Your task to perform on an android device: toggle translation in the chrome app Image 0: 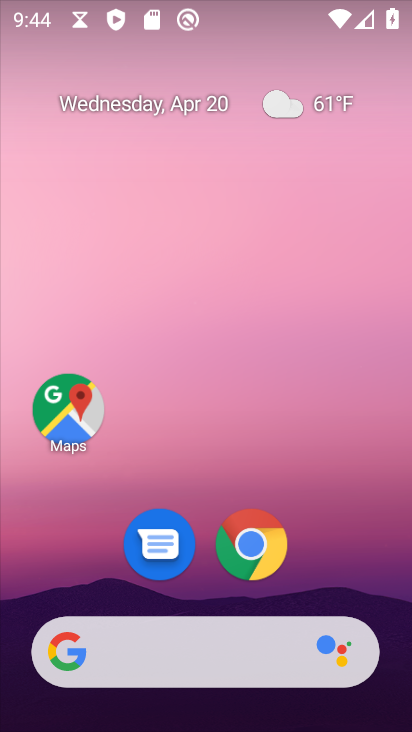
Step 0: drag from (149, 658) to (247, 97)
Your task to perform on an android device: toggle translation in the chrome app Image 1: 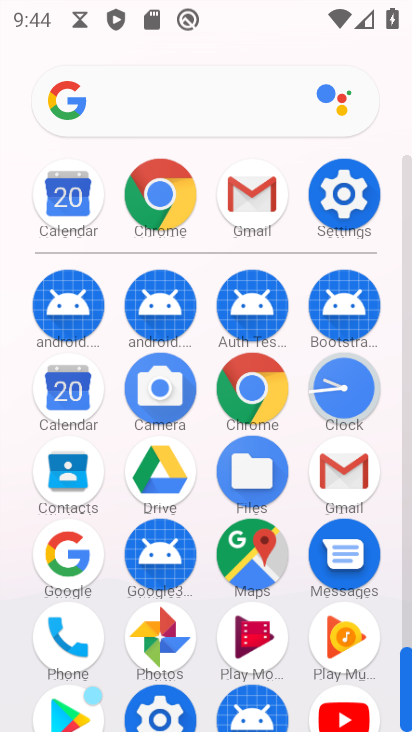
Step 1: click (163, 188)
Your task to perform on an android device: toggle translation in the chrome app Image 2: 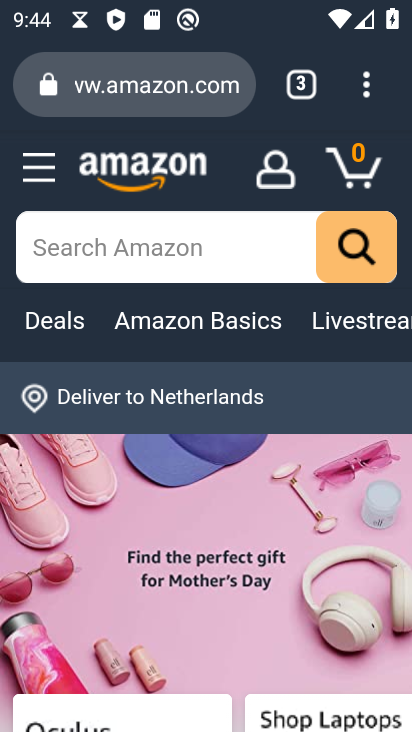
Step 2: click (363, 105)
Your task to perform on an android device: toggle translation in the chrome app Image 3: 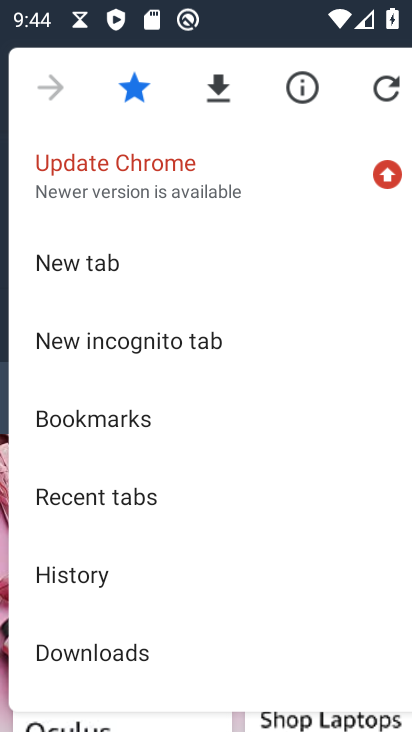
Step 3: drag from (157, 565) to (348, 139)
Your task to perform on an android device: toggle translation in the chrome app Image 4: 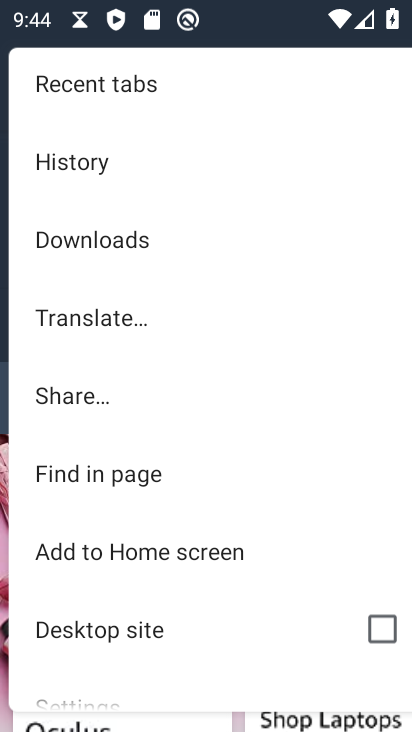
Step 4: drag from (254, 545) to (353, 88)
Your task to perform on an android device: toggle translation in the chrome app Image 5: 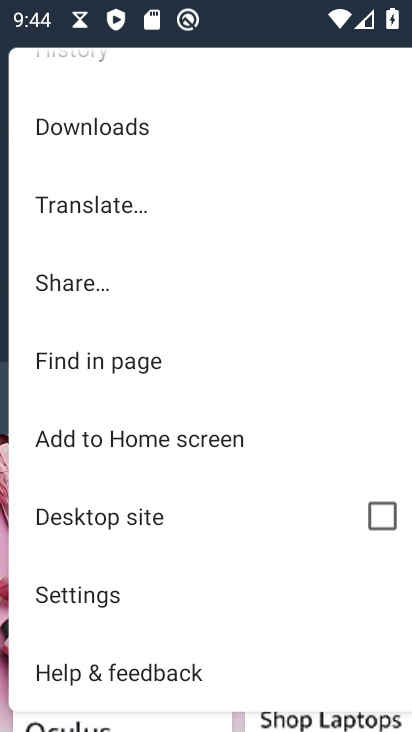
Step 5: click (69, 596)
Your task to perform on an android device: toggle translation in the chrome app Image 6: 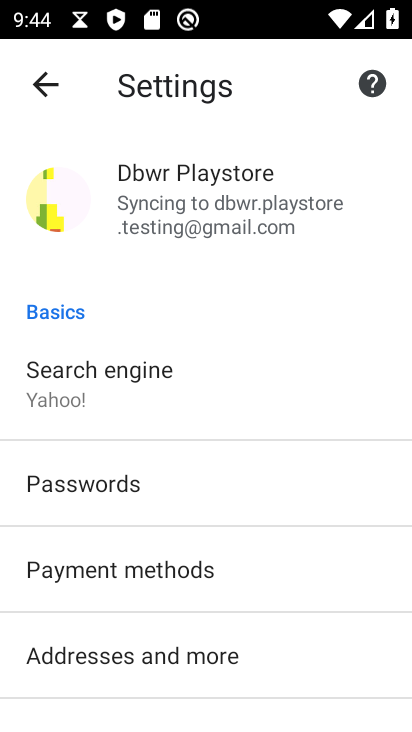
Step 6: drag from (204, 601) to (290, 118)
Your task to perform on an android device: toggle translation in the chrome app Image 7: 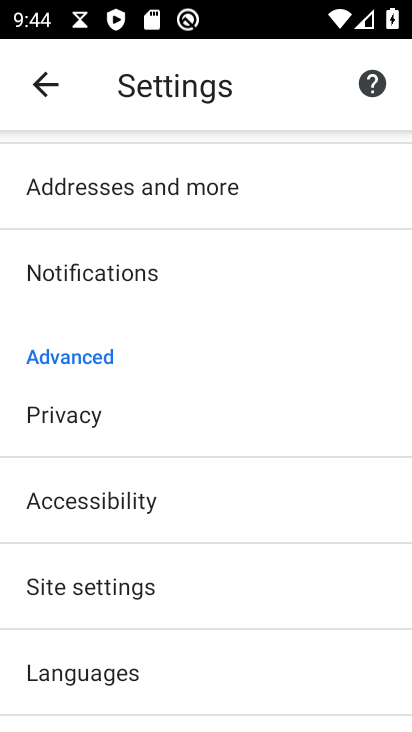
Step 7: drag from (196, 579) to (293, 250)
Your task to perform on an android device: toggle translation in the chrome app Image 8: 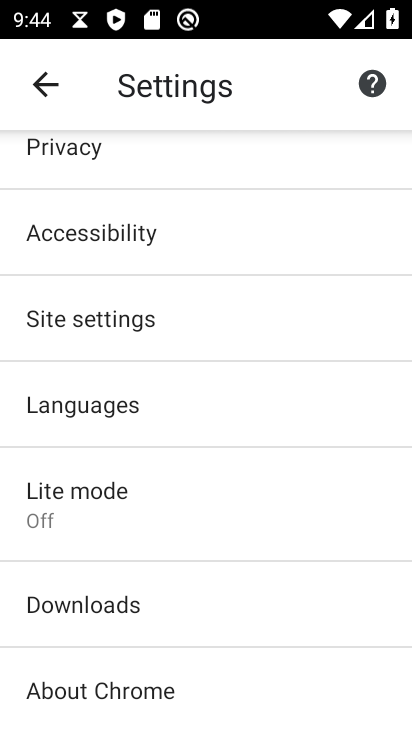
Step 8: click (101, 406)
Your task to perform on an android device: toggle translation in the chrome app Image 9: 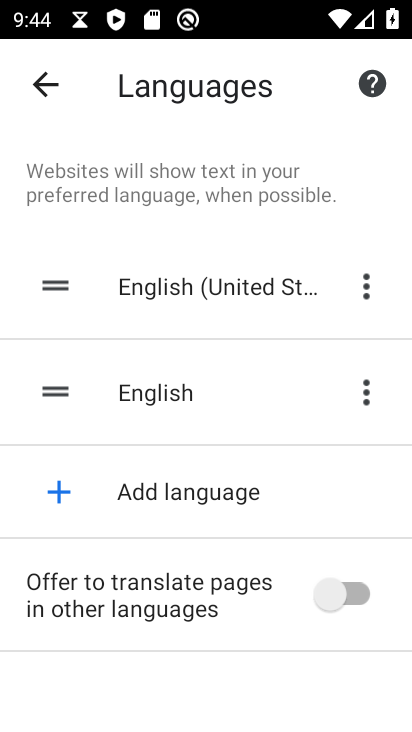
Step 9: click (363, 593)
Your task to perform on an android device: toggle translation in the chrome app Image 10: 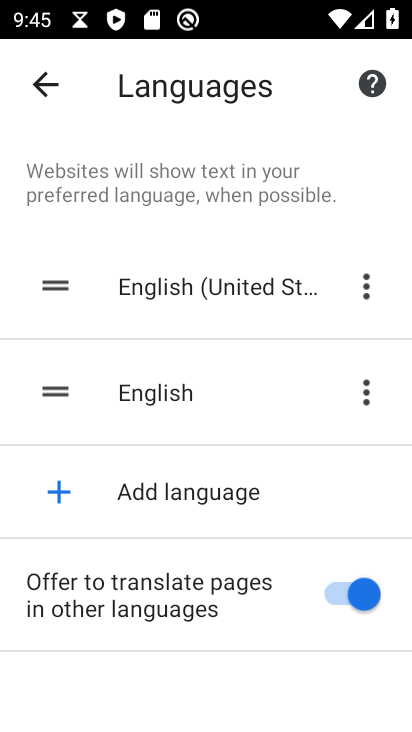
Step 10: task complete